Your task to perform on an android device: stop showing notifications on the lock screen Image 0: 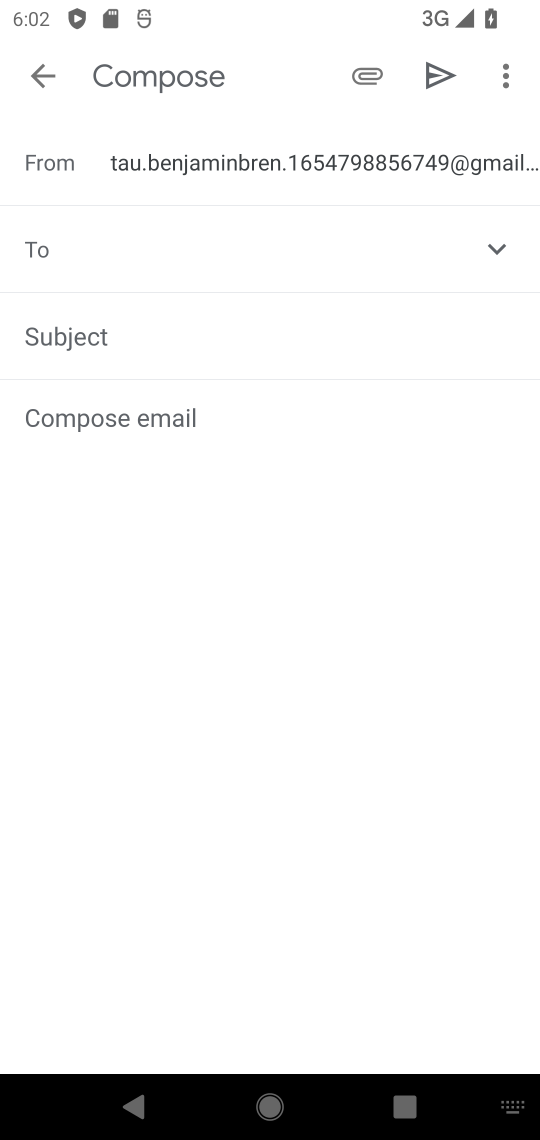
Step 0: press home button
Your task to perform on an android device: stop showing notifications on the lock screen Image 1: 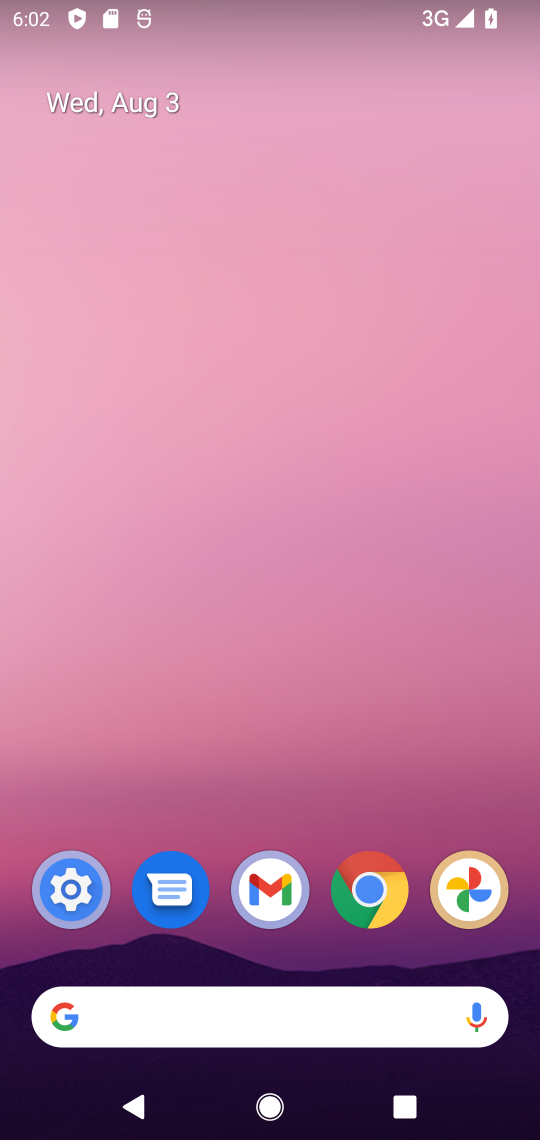
Step 1: click (64, 892)
Your task to perform on an android device: stop showing notifications on the lock screen Image 2: 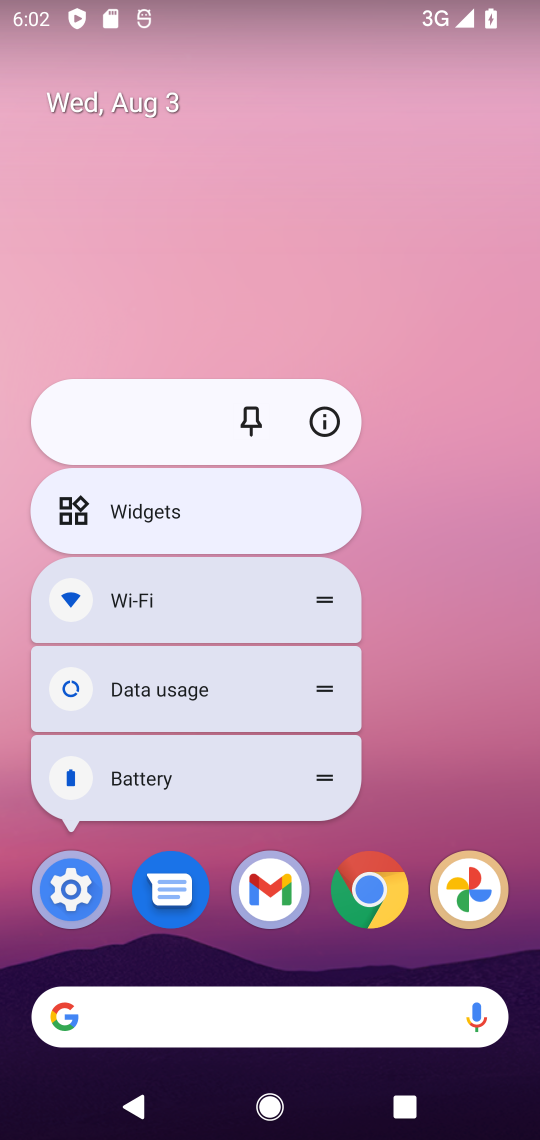
Step 2: click (66, 885)
Your task to perform on an android device: stop showing notifications on the lock screen Image 3: 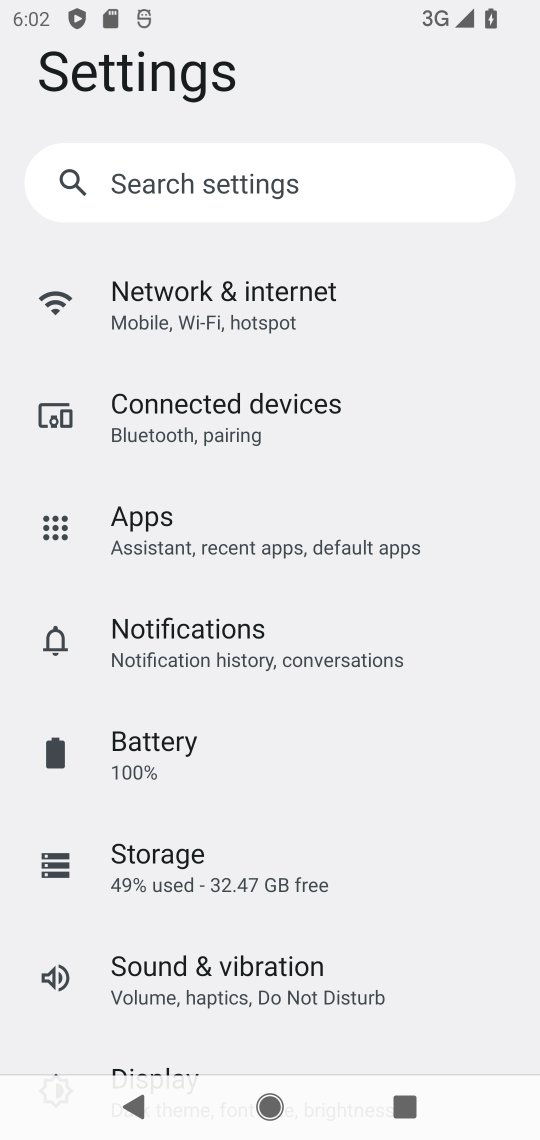
Step 3: click (235, 639)
Your task to perform on an android device: stop showing notifications on the lock screen Image 4: 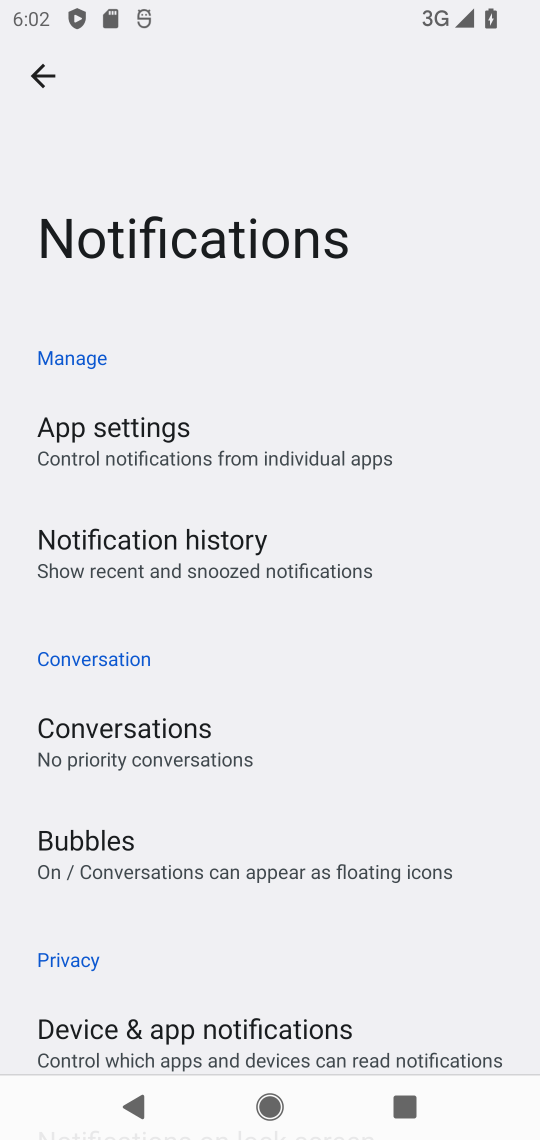
Step 4: drag from (284, 730) to (297, 200)
Your task to perform on an android device: stop showing notifications on the lock screen Image 5: 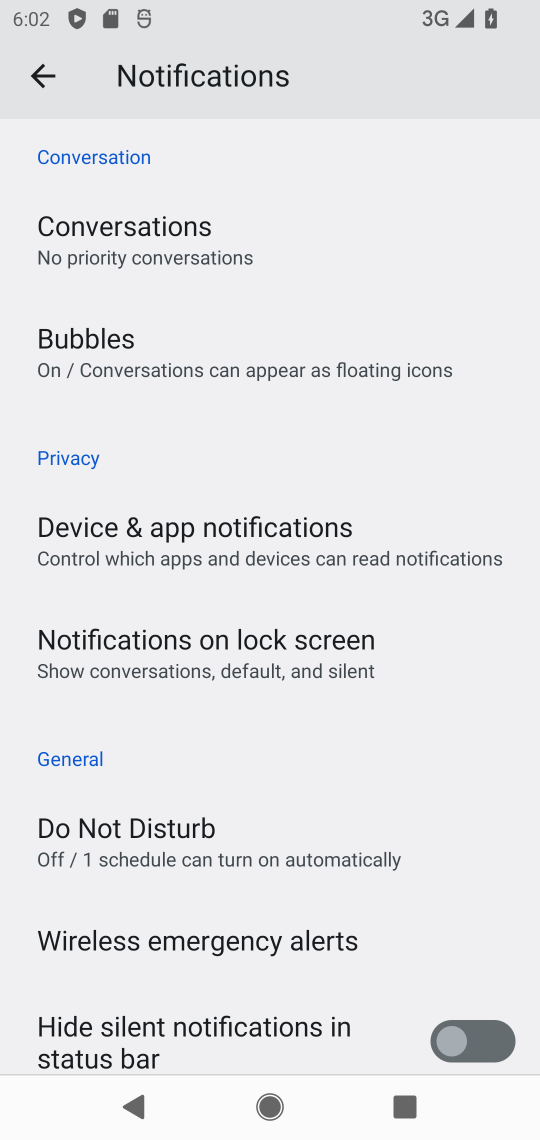
Step 5: click (293, 657)
Your task to perform on an android device: stop showing notifications on the lock screen Image 6: 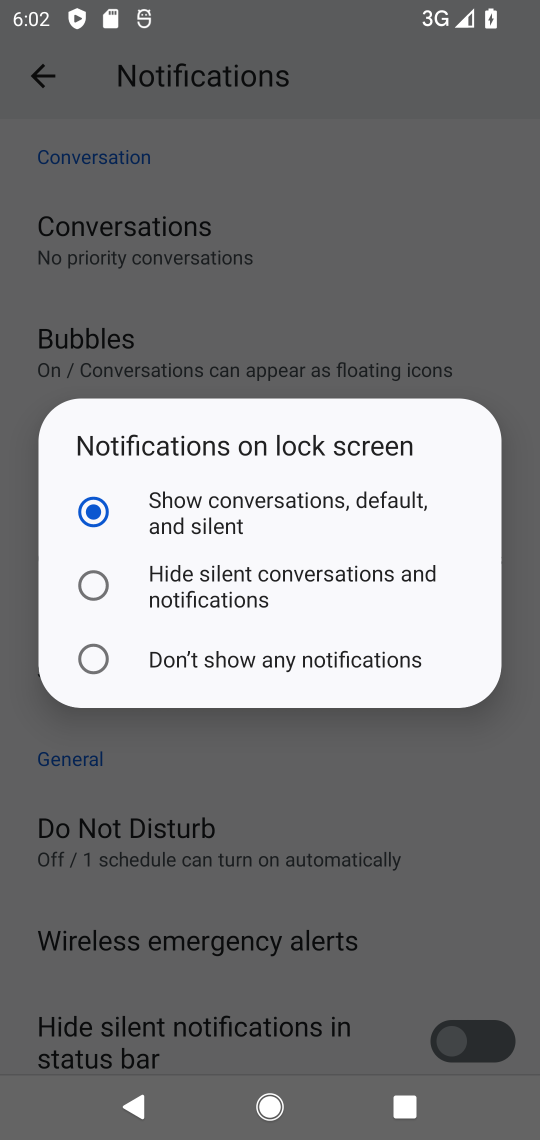
Step 6: click (88, 664)
Your task to perform on an android device: stop showing notifications on the lock screen Image 7: 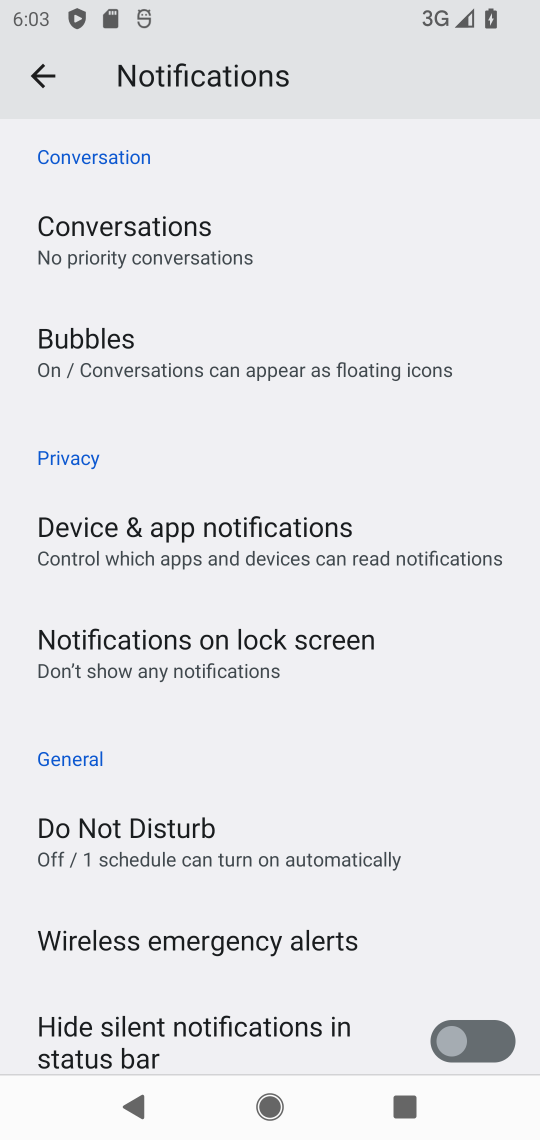
Step 7: task complete